Your task to perform on an android device: Open privacy settings Image 0: 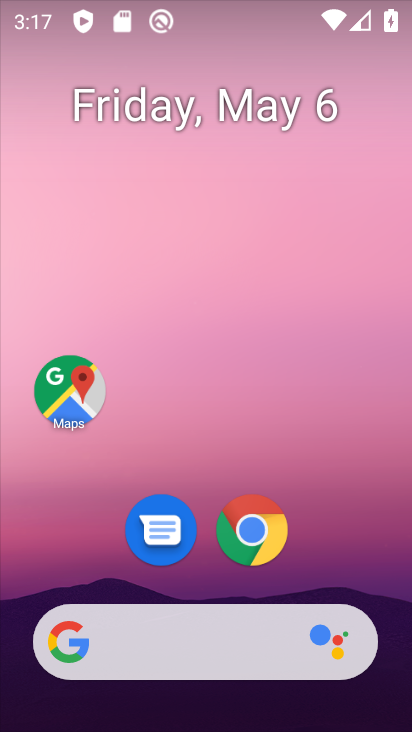
Step 0: drag from (331, 594) to (353, 298)
Your task to perform on an android device: Open privacy settings Image 1: 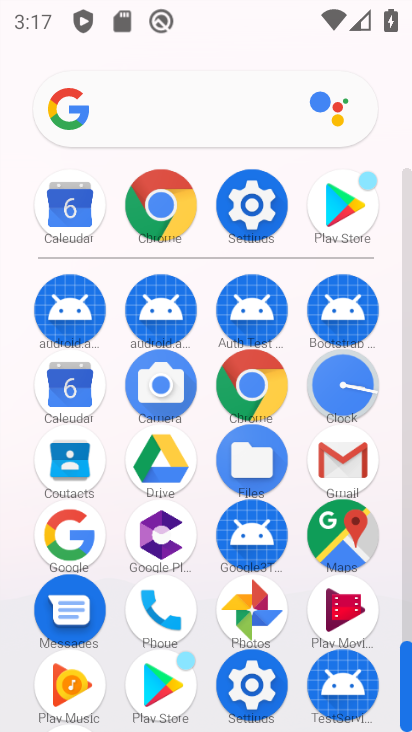
Step 1: click (253, 221)
Your task to perform on an android device: Open privacy settings Image 2: 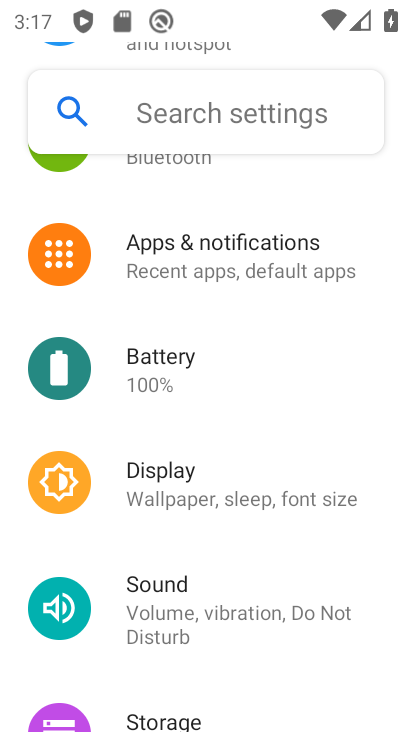
Step 2: drag from (269, 467) to (289, 172)
Your task to perform on an android device: Open privacy settings Image 3: 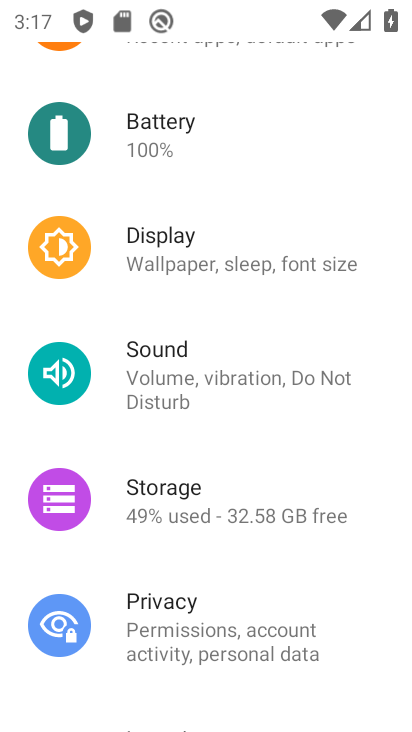
Step 3: click (243, 633)
Your task to perform on an android device: Open privacy settings Image 4: 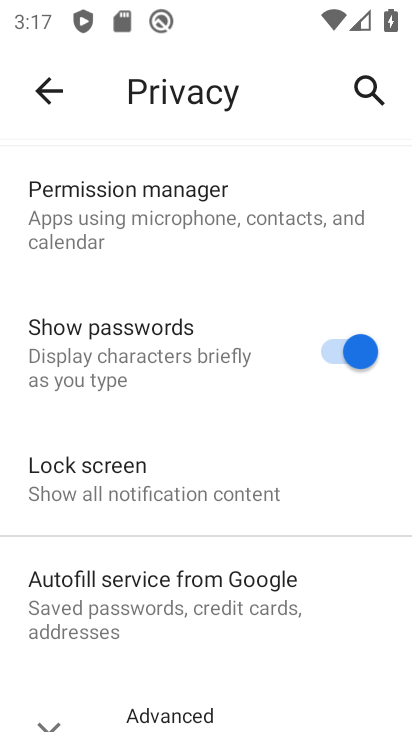
Step 4: task complete